Your task to perform on an android device: snooze an email in the gmail app Image 0: 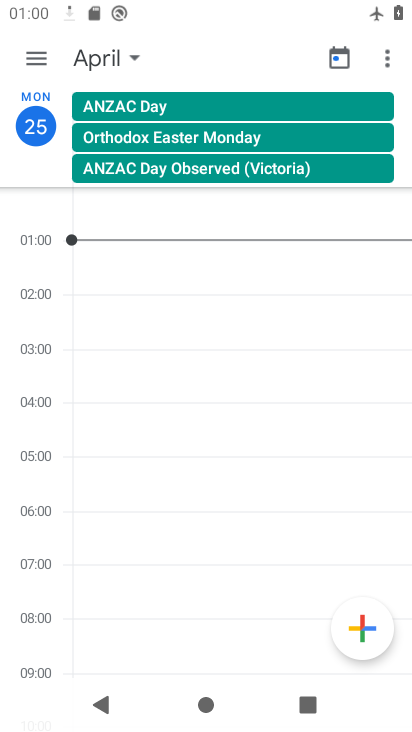
Step 0: press home button
Your task to perform on an android device: snooze an email in the gmail app Image 1: 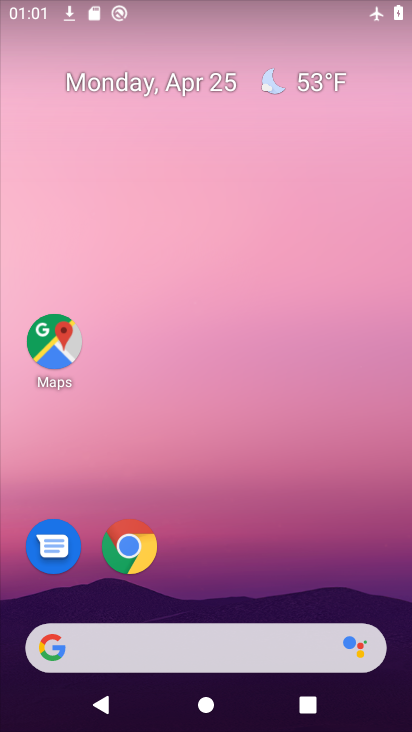
Step 1: drag from (342, 593) to (48, 0)
Your task to perform on an android device: snooze an email in the gmail app Image 2: 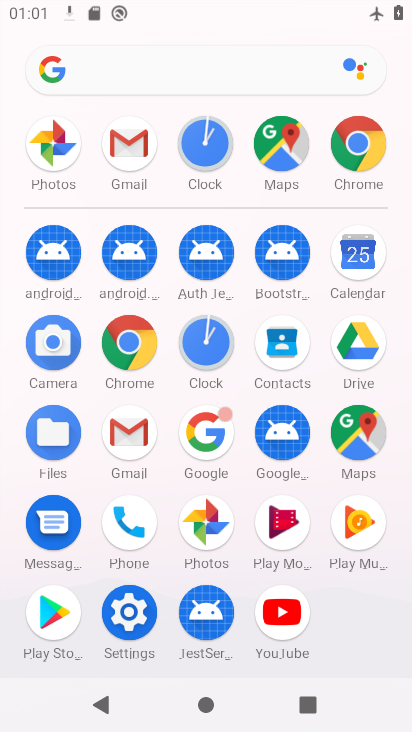
Step 2: click (110, 143)
Your task to perform on an android device: snooze an email in the gmail app Image 3: 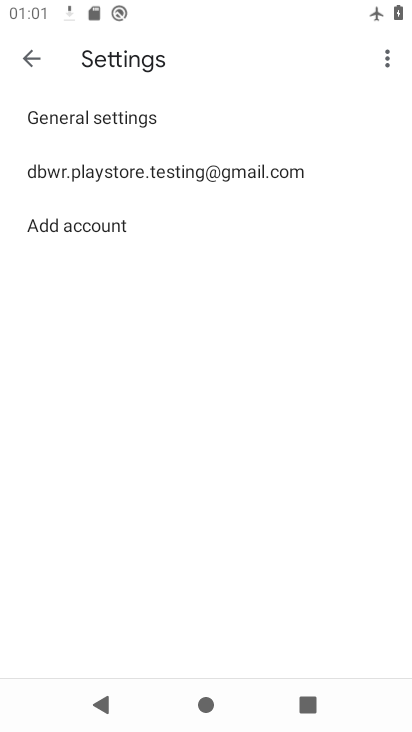
Step 3: click (12, 46)
Your task to perform on an android device: snooze an email in the gmail app Image 4: 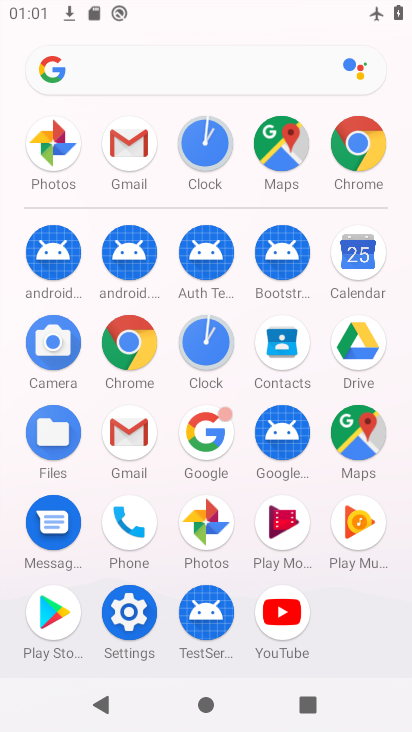
Step 4: click (150, 139)
Your task to perform on an android device: snooze an email in the gmail app Image 5: 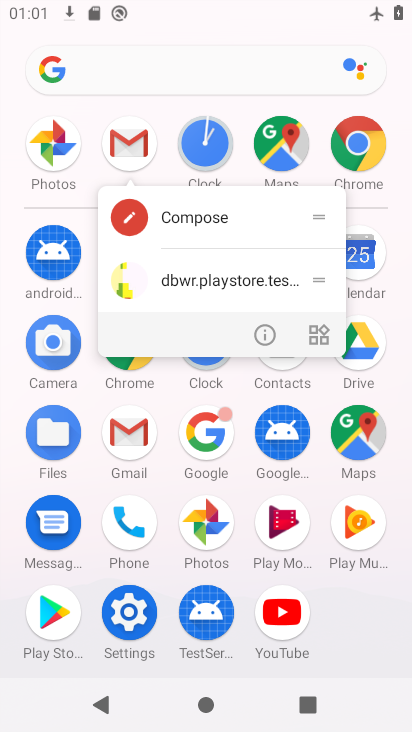
Step 5: click (110, 147)
Your task to perform on an android device: snooze an email in the gmail app Image 6: 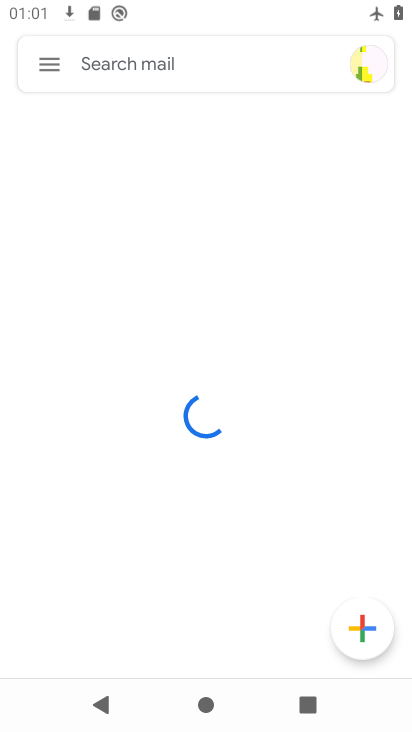
Step 6: click (48, 70)
Your task to perform on an android device: snooze an email in the gmail app Image 7: 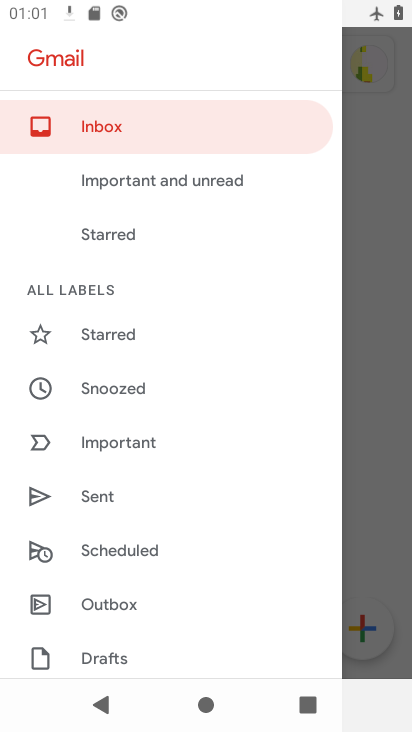
Step 7: task complete